Your task to perform on an android device: toggle notification dots Image 0: 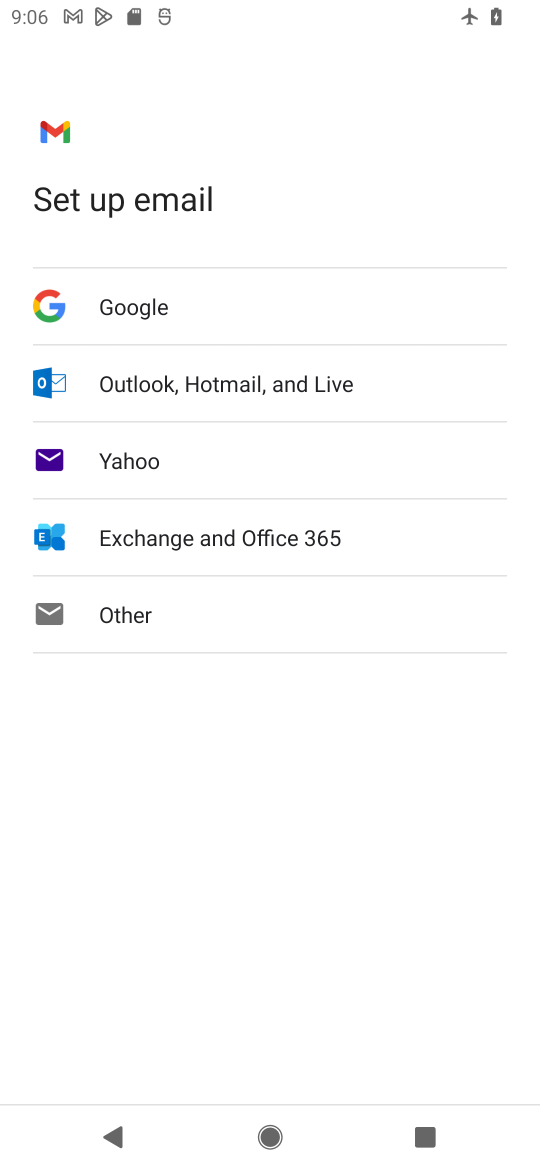
Step 0: press home button
Your task to perform on an android device: toggle notification dots Image 1: 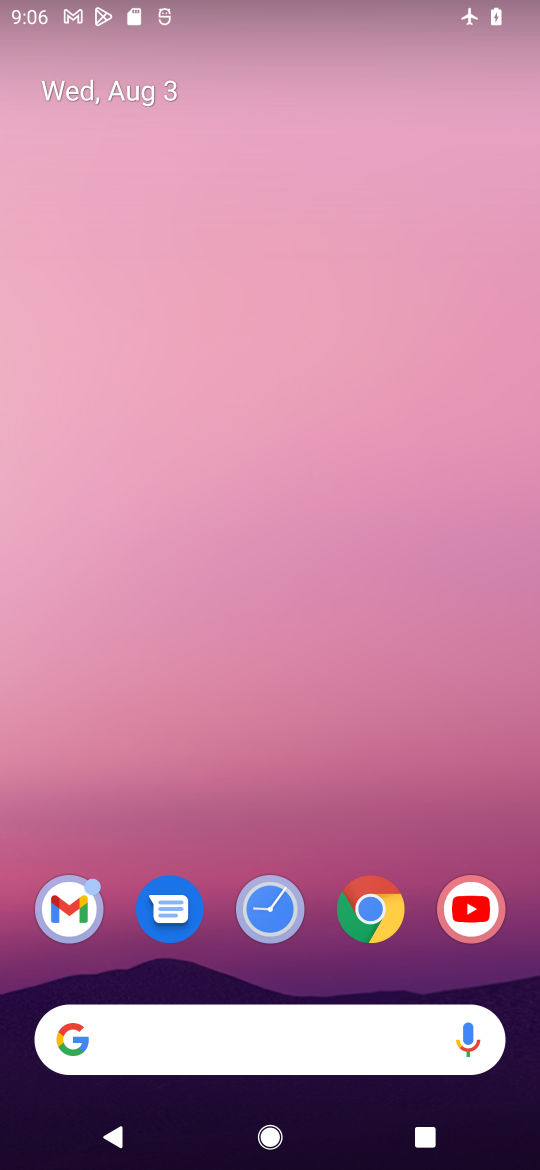
Step 1: drag from (345, 799) to (339, 266)
Your task to perform on an android device: toggle notification dots Image 2: 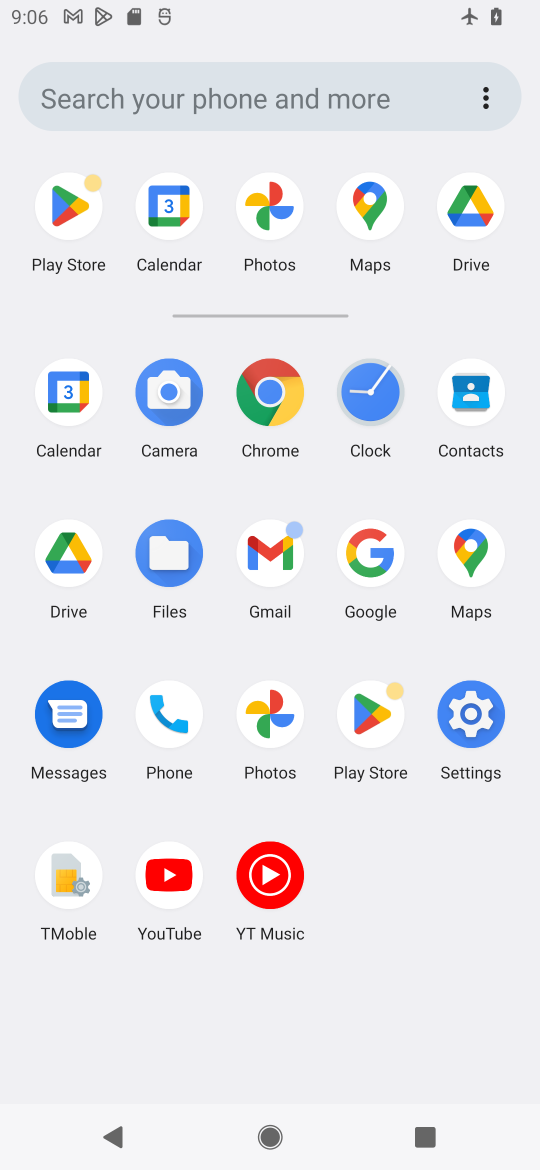
Step 2: click (490, 725)
Your task to perform on an android device: toggle notification dots Image 3: 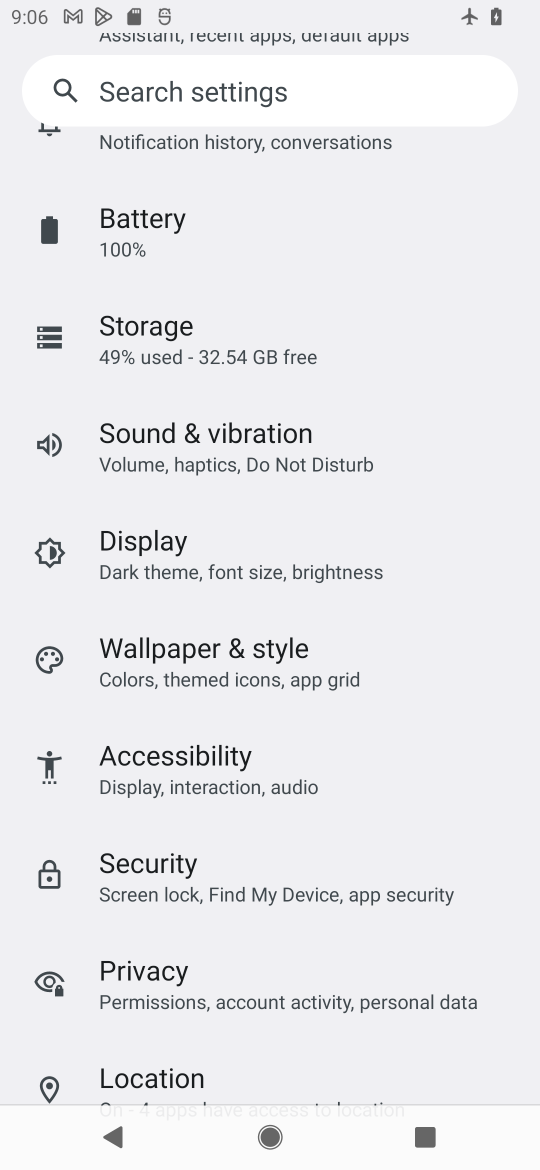
Step 3: drag from (464, 964) to (486, 797)
Your task to perform on an android device: toggle notification dots Image 4: 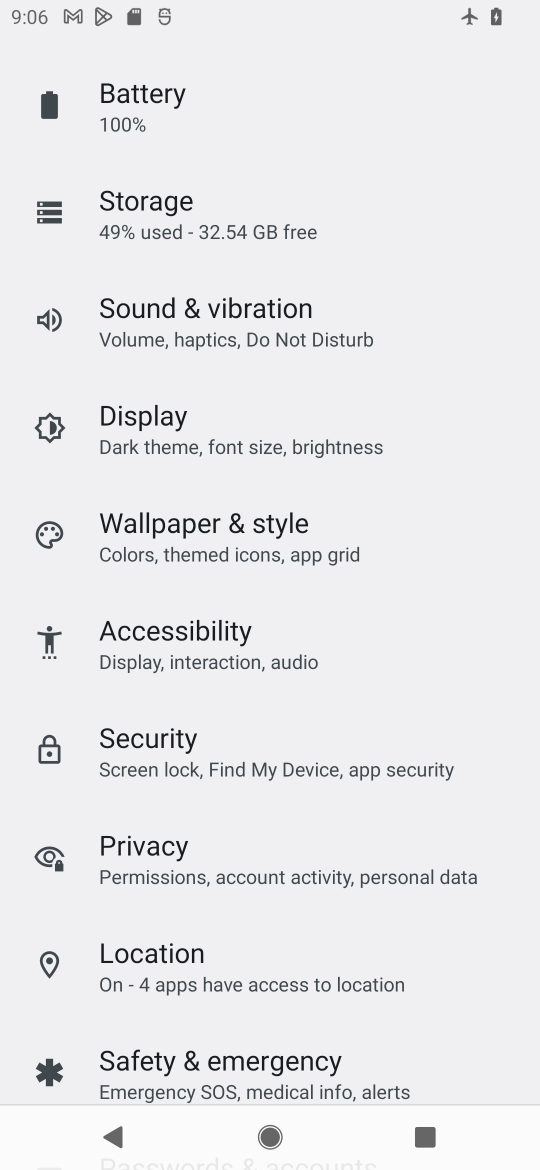
Step 4: drag from (480, 1016) to (477, 827)
Your task to perform on an android device: toggle notification dots Image 5: 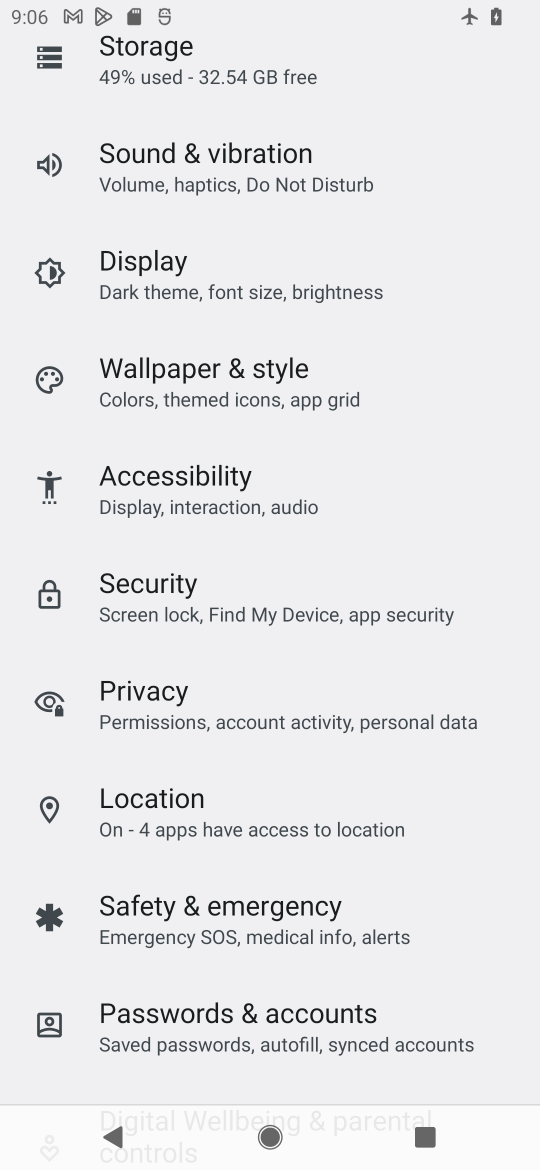
Step 5: drag from (450, 933) to (455, 763)
Your task to perform on an android device: toggle notification dots Image 6: 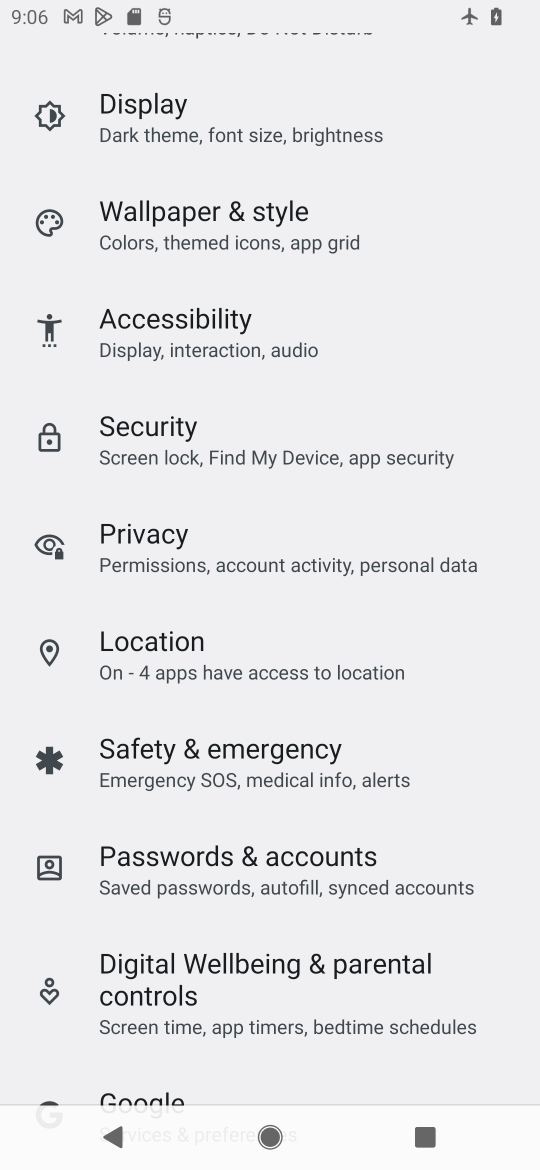
Step 6: drag from (503, 1028) to (497, 836)
Your task to perform on an android device: toggle notification dots Image 7: 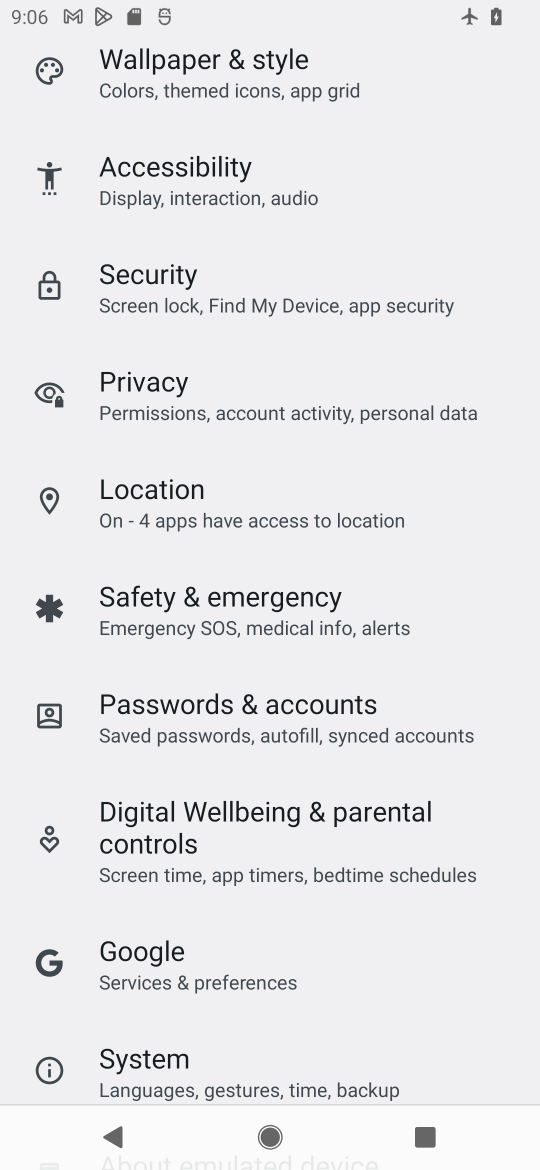
Step 7: drag from (487, 1035) to (489, 819)
Your task to perform on an android device: toggle notification dots Image 8: 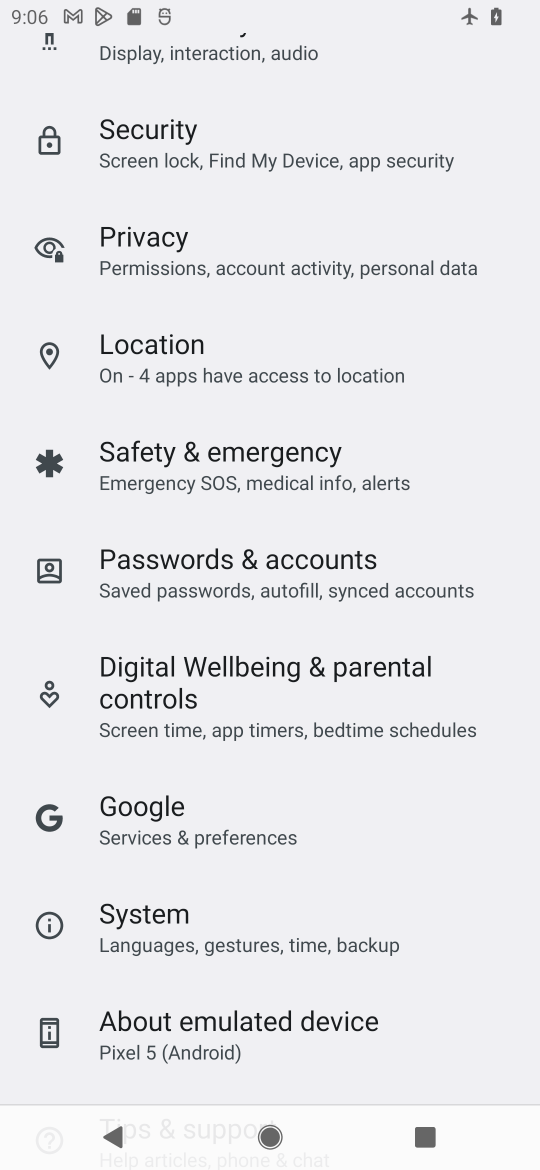
Step 8: drag from (460, 984) to (472, 756)
Your task to perform on an android device: toggle notification dots Image 9: 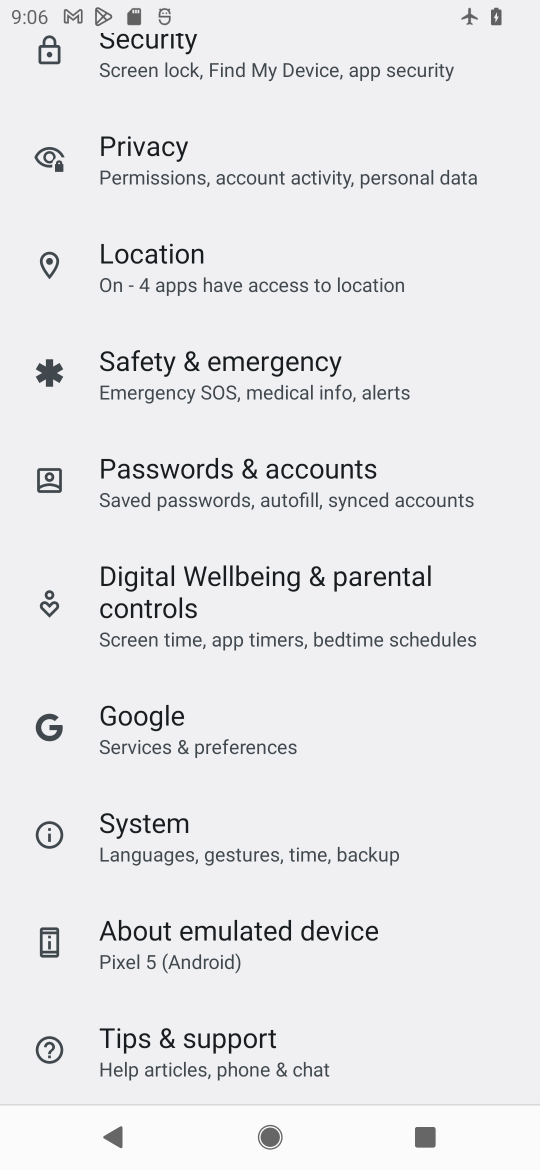
Step 9: drag from (468, 690) to (461, 823)
Your task to perform on an android device: toggle notification dots Image 10: 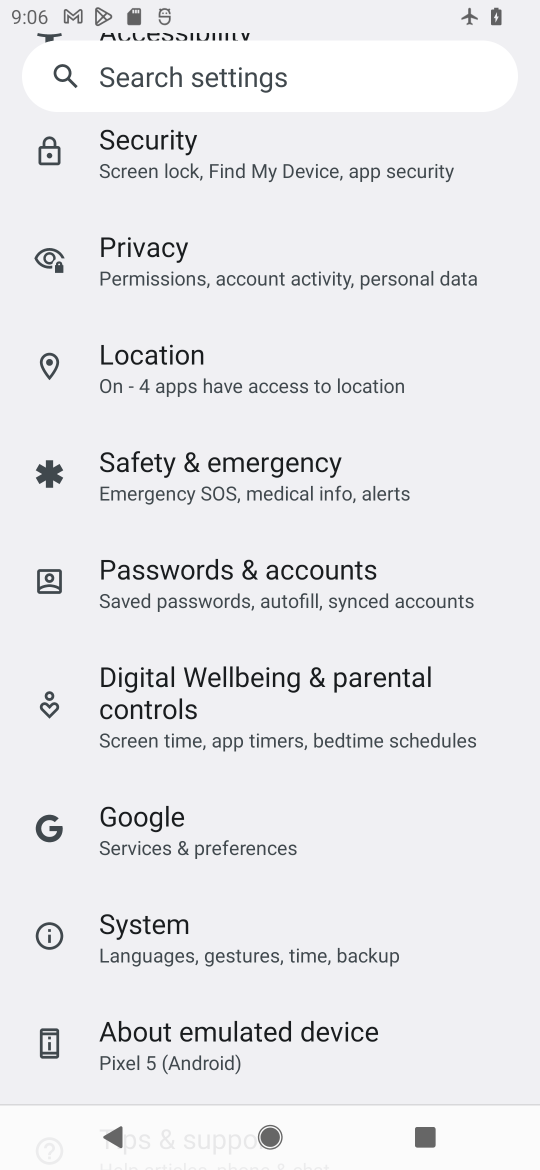
Step 10: drag from (507, 641) to (507, 799)
Your task to perform on an android device: toggle notification dots Image 11: 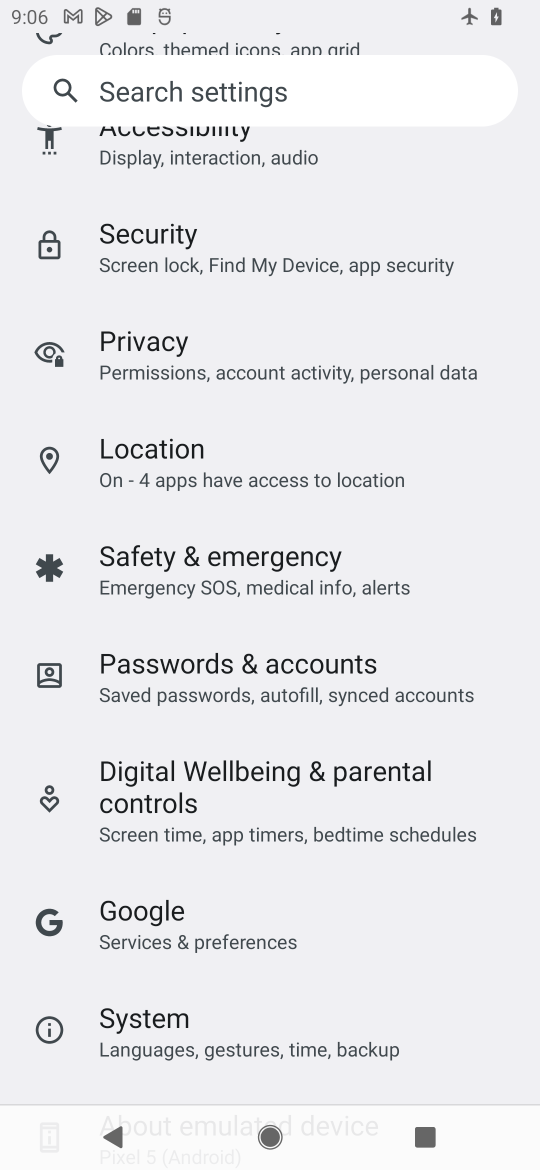
Step 11: drag from (507, 610) to (497, 761)
Your task to perform on an android device: toggle notification dots Image 12: 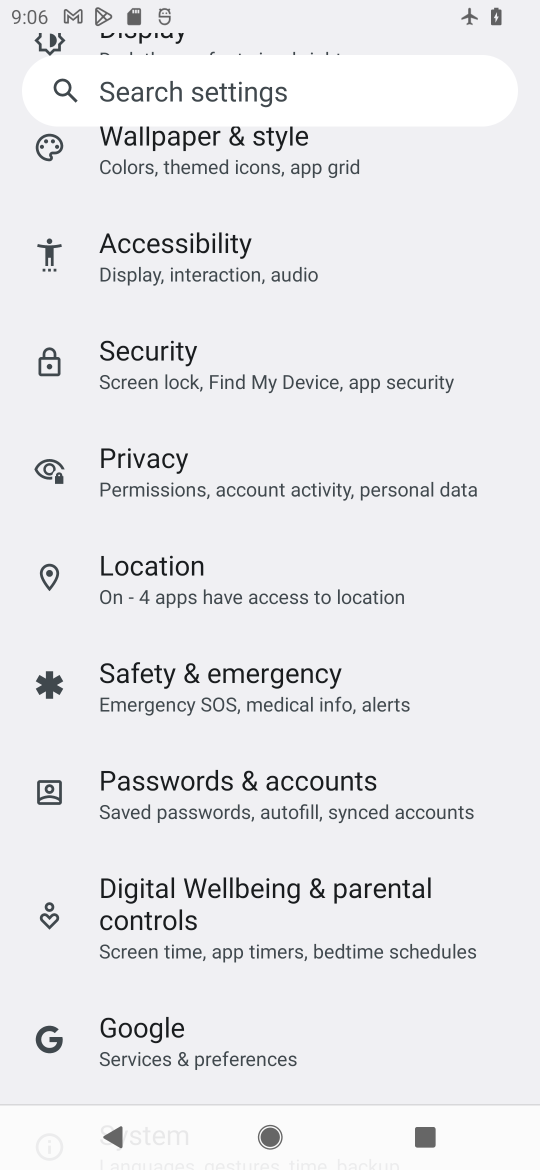
Step 12: drag from (488, 555) to (488, 731)
Your task to perform on an android device: toggle notification dots Image 13: 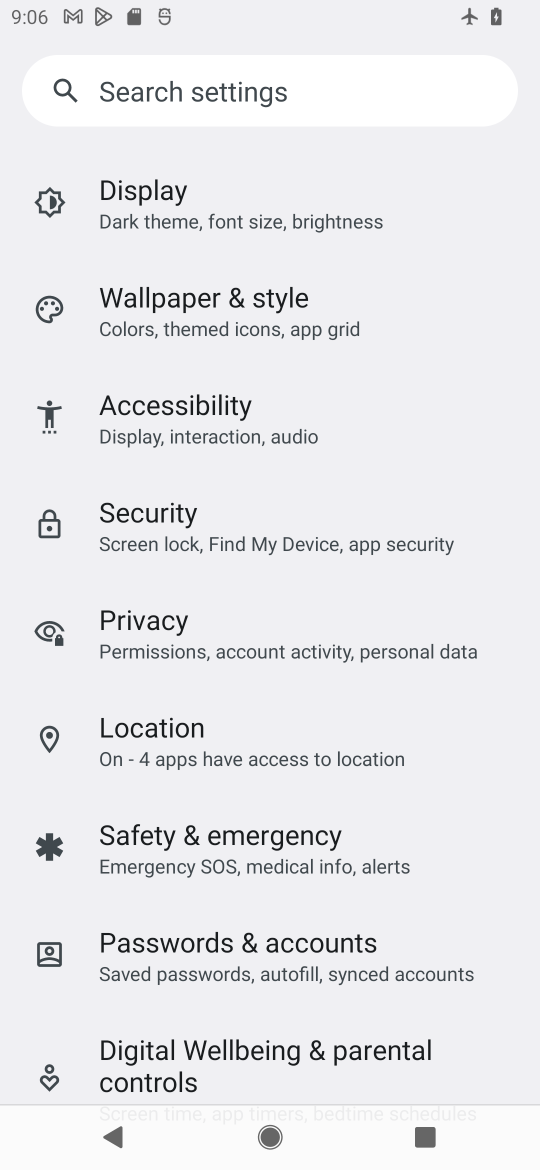
Step 13: drag from (495, 550) to (498, 733)
Your task to perform on an android device: toggle notification dots Image 14: 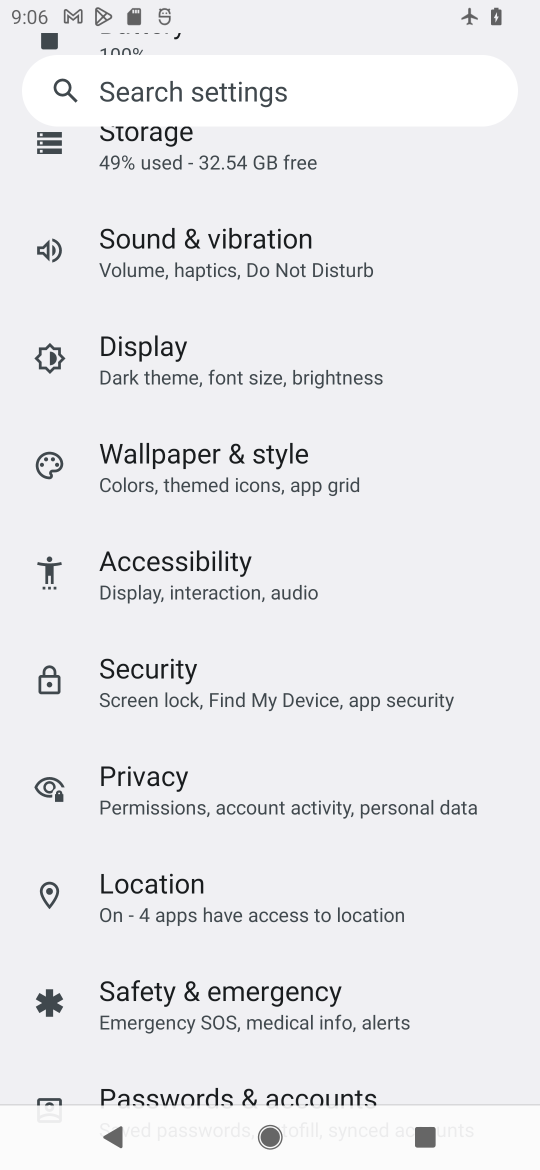
Step 14: drag from (492, 535) to (492, 737)
Your task to perform on an android device: toggle notification dots Image 15: 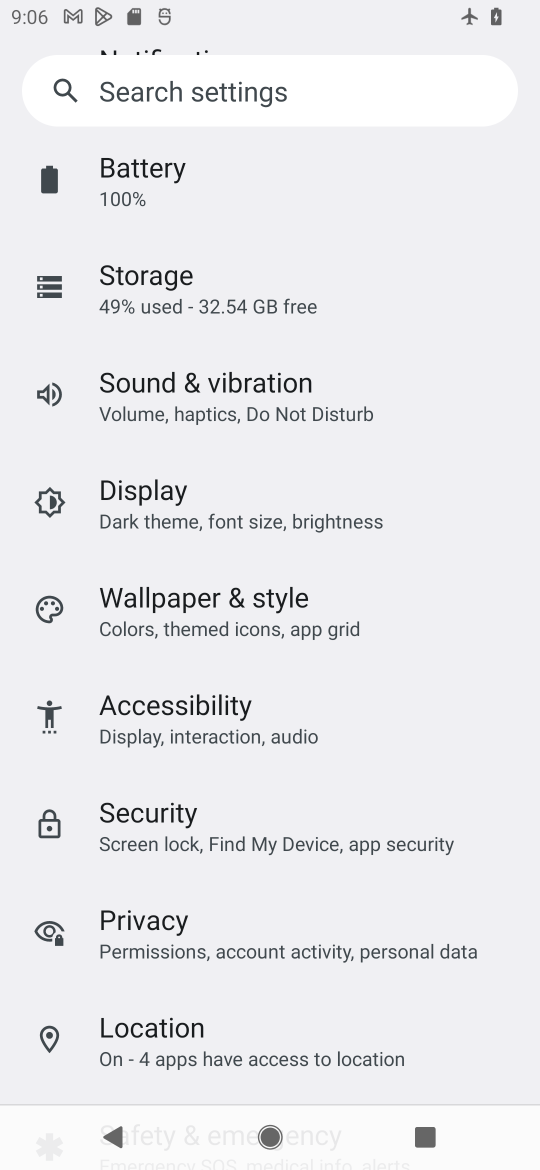
Step 15: drag from (465, 504) to (467, 723)
Your task to perform on an android device: toggle notification dots Image 16: 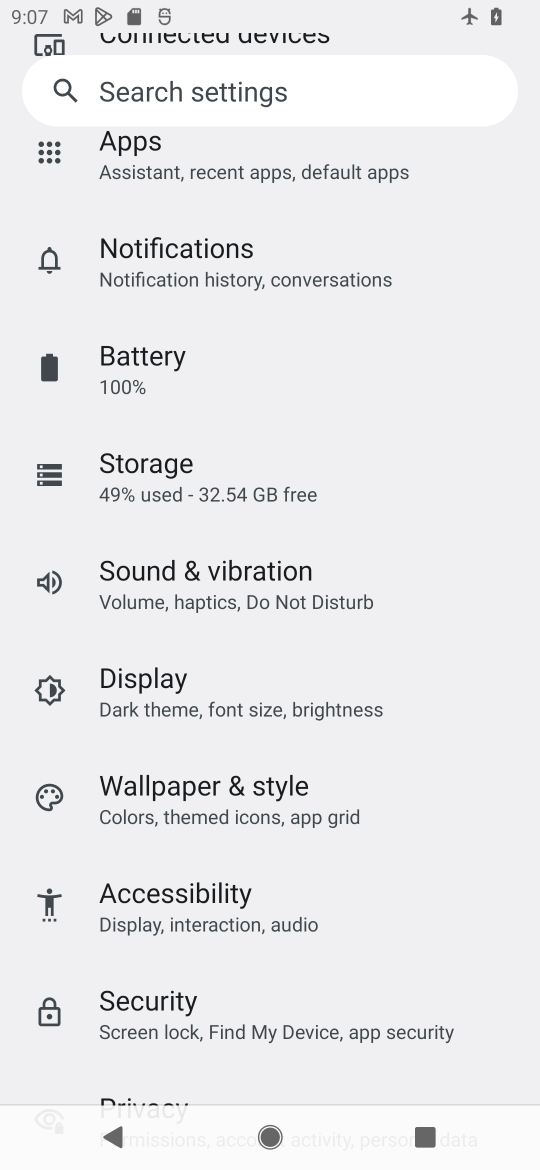
Step 16: drag from (464, 422) to (464, 656)
Your task to perform on an android device: toggle notification dots Image 17: 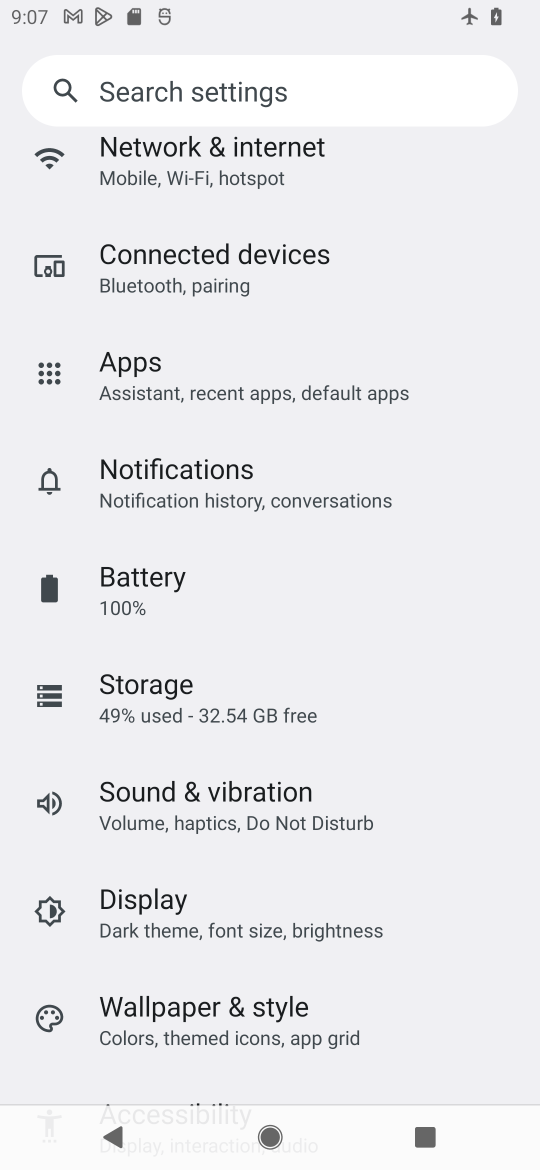
Step 17: drag from (468, 404) to (471, 695)
Your task to perform on an android device: toggle notification dots Image 18: 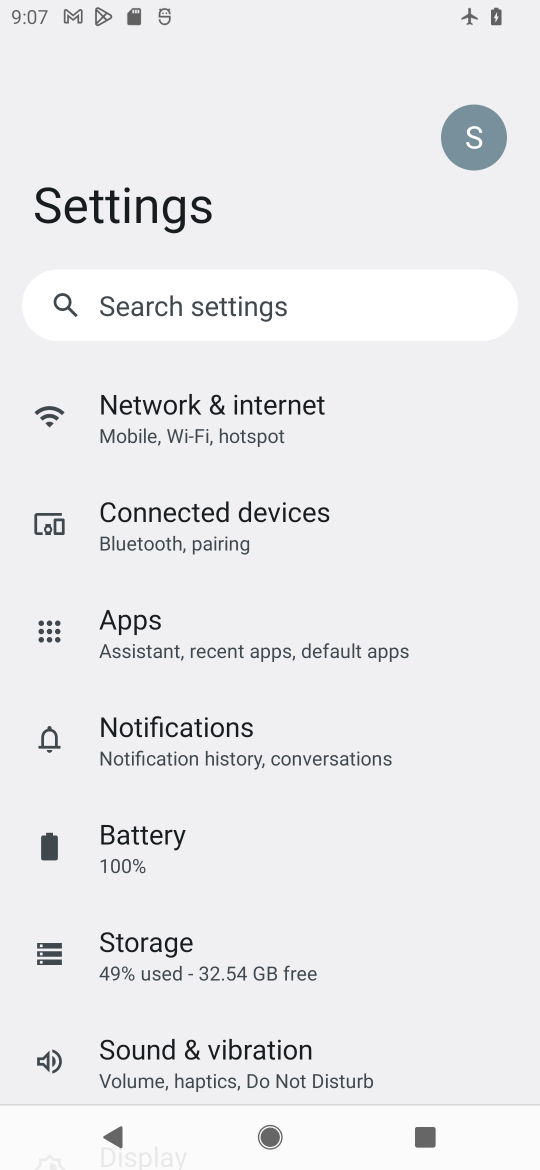
Step 18: click (304, 748)
Your task to perform on an android device: toggle notification dots Image 19: 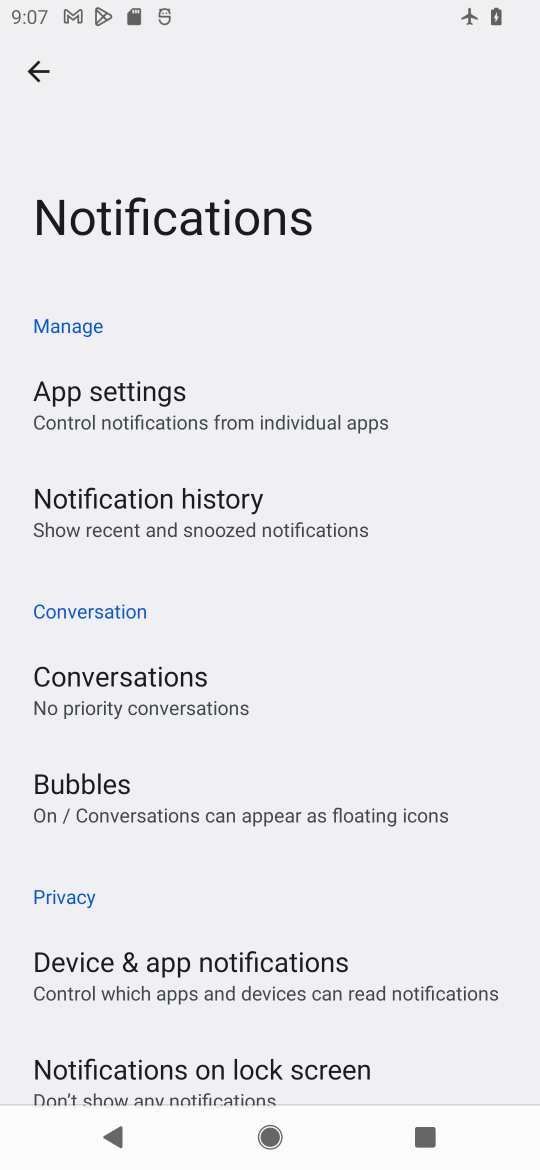
Step 19: drag from (396, 897) to (397, 761)
Your task to perform on an android device: toggle notification dots Image 20: 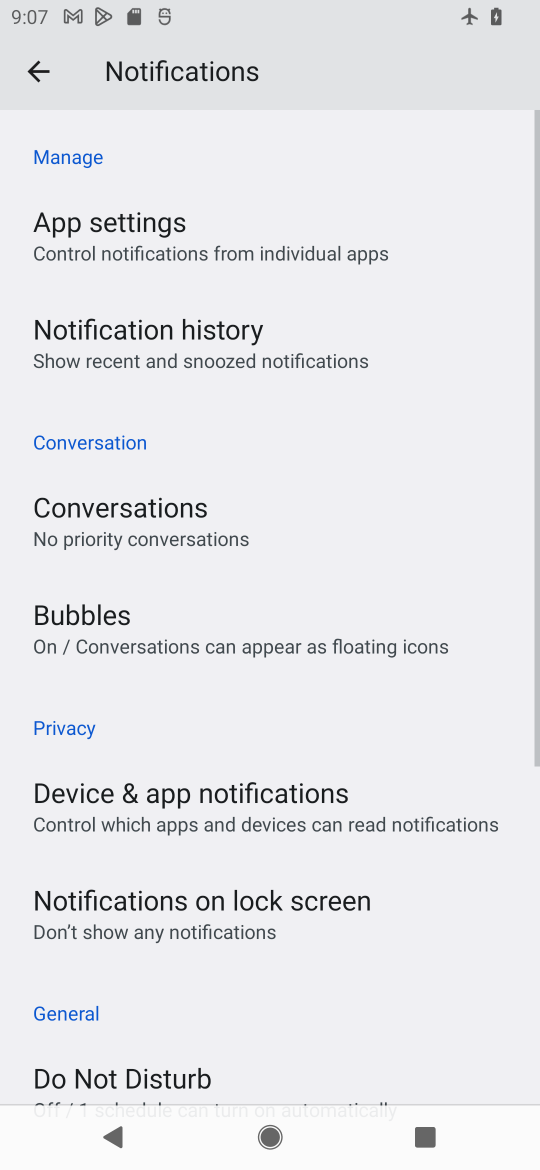
Step 20: drag from (397, 936) to (430, 796)
Your task to perform on an android device: toggle notification dots Image 21: 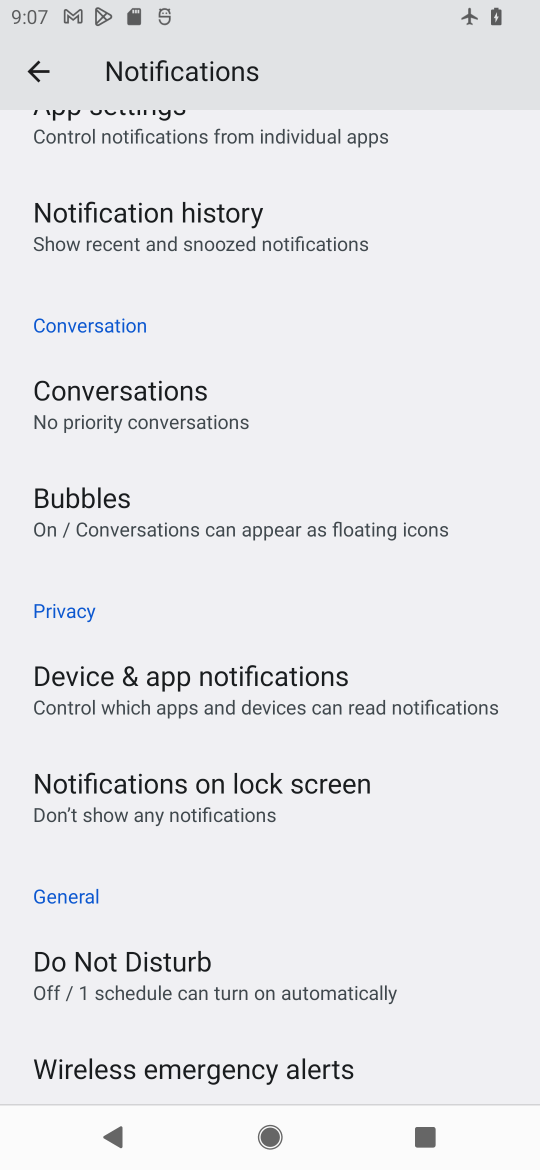
Step 21: drag from (431, 1034) to (441, 878)
Your task to perform on an android device: toggle notification dots Image 22: 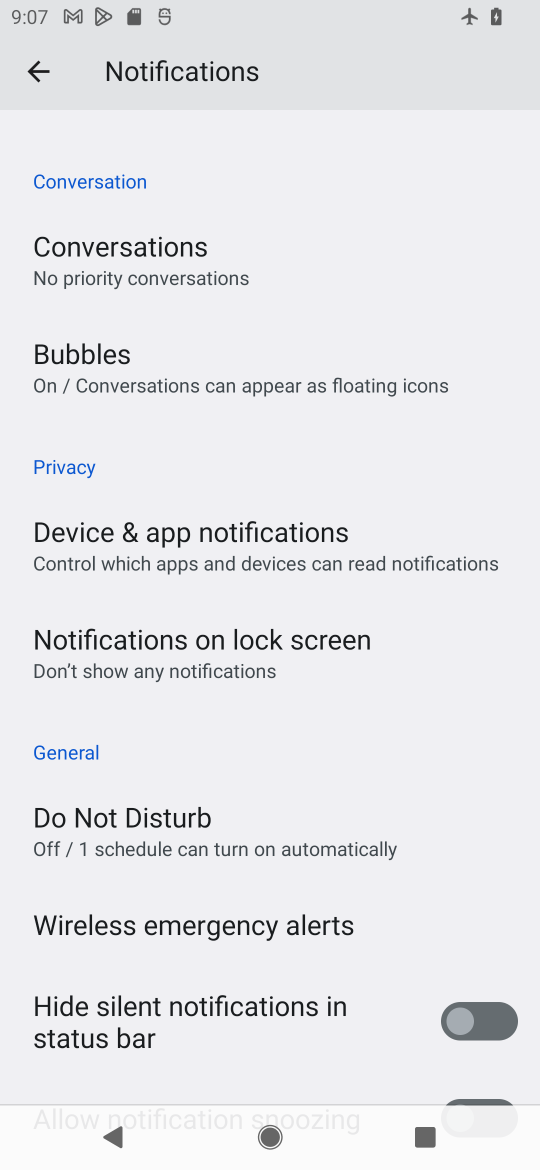
Step 22: drag from (378, 1025) to (401, 861)
Your task to perform on an android device: toggle notification dots Image 23: 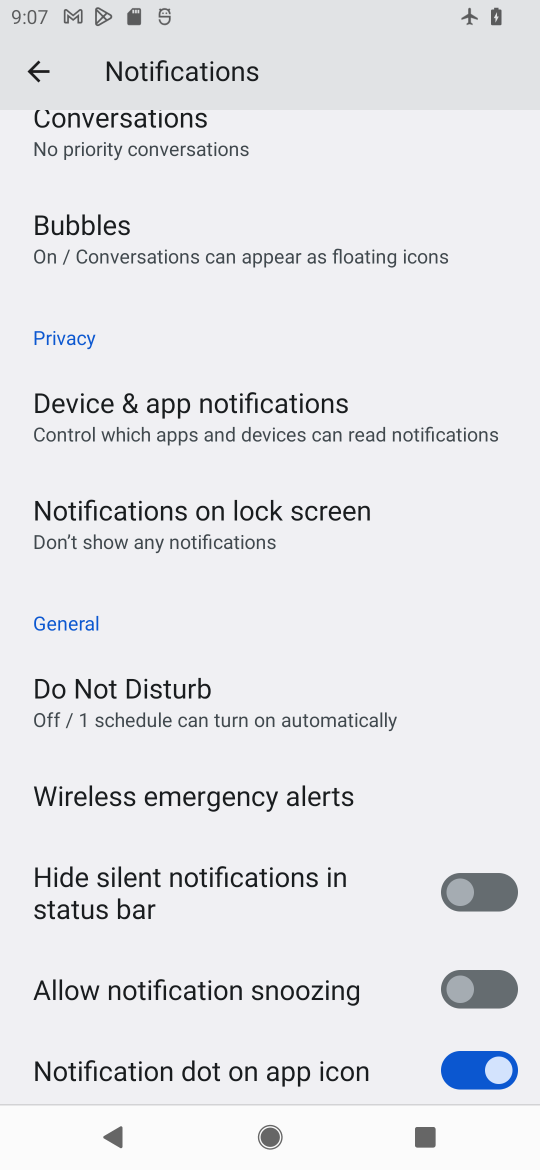
Step 23: drag from (401, 1013) to (405, 849)
Your task to perform on an android device: toggle notification dots Image 24: 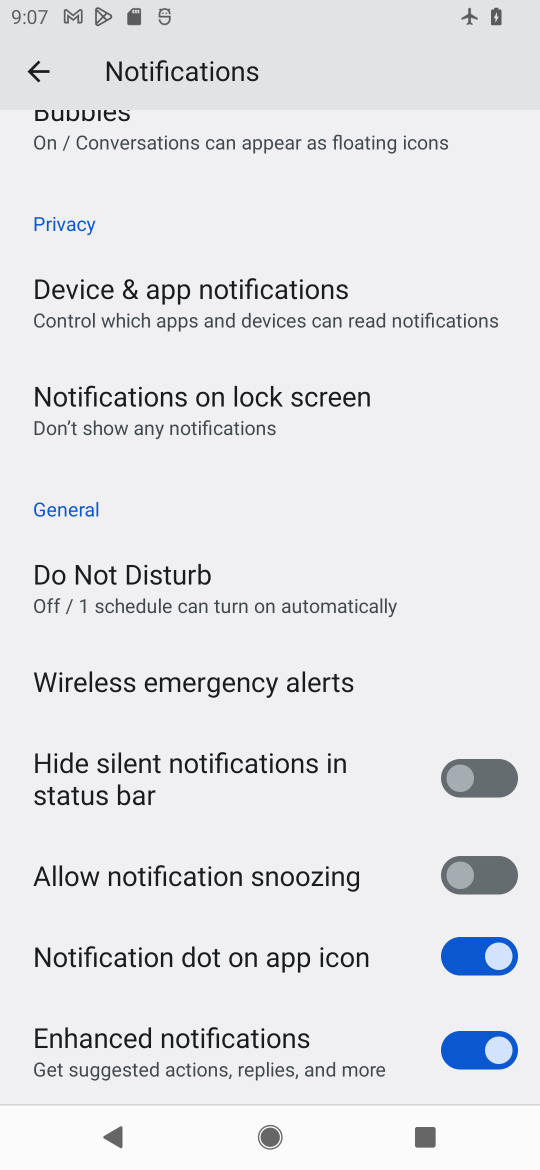
Step 24: click (448, 959)
Your task to perform on an android device: toggle notification dots Image 25: 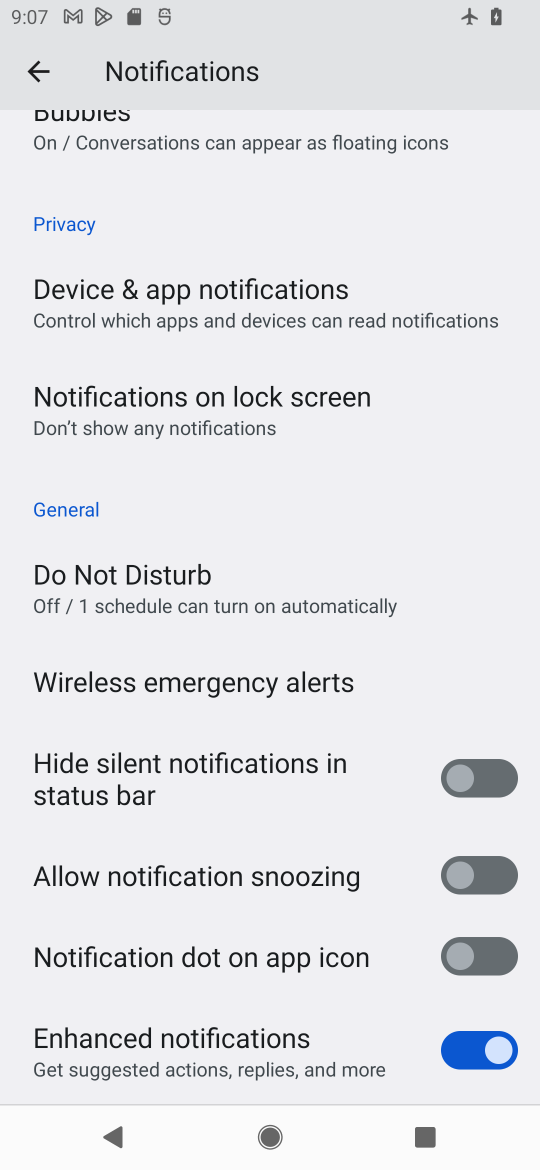
Step 25: task complete